Your task to perform on an android device: Find coffee shops on Maps Image 0: 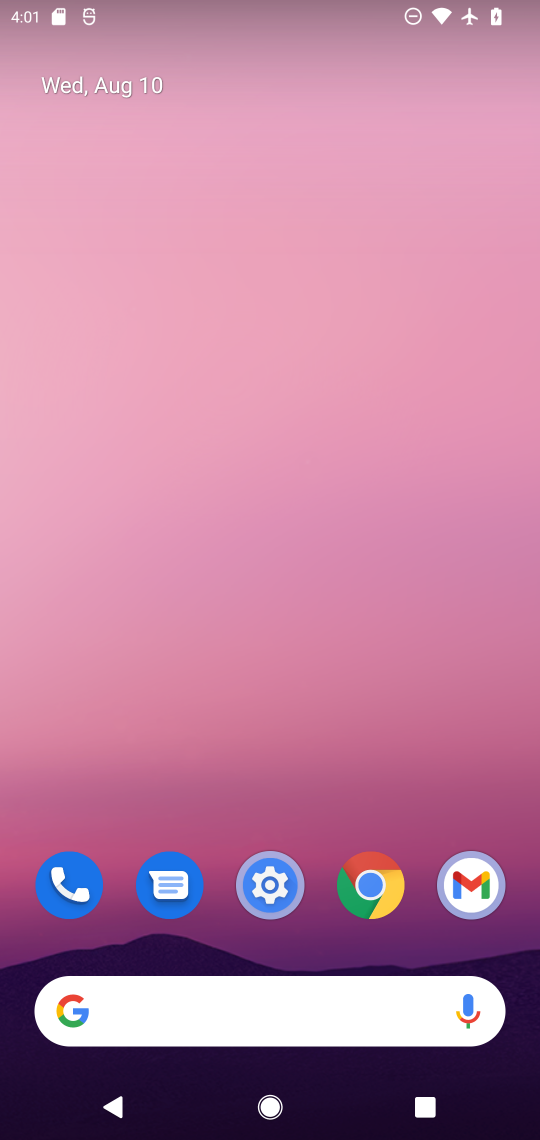
Step 0: drag from (318, 946) to (174, 101)
Your task to perform on an android device: Find coffee shops on Maps Image 1: 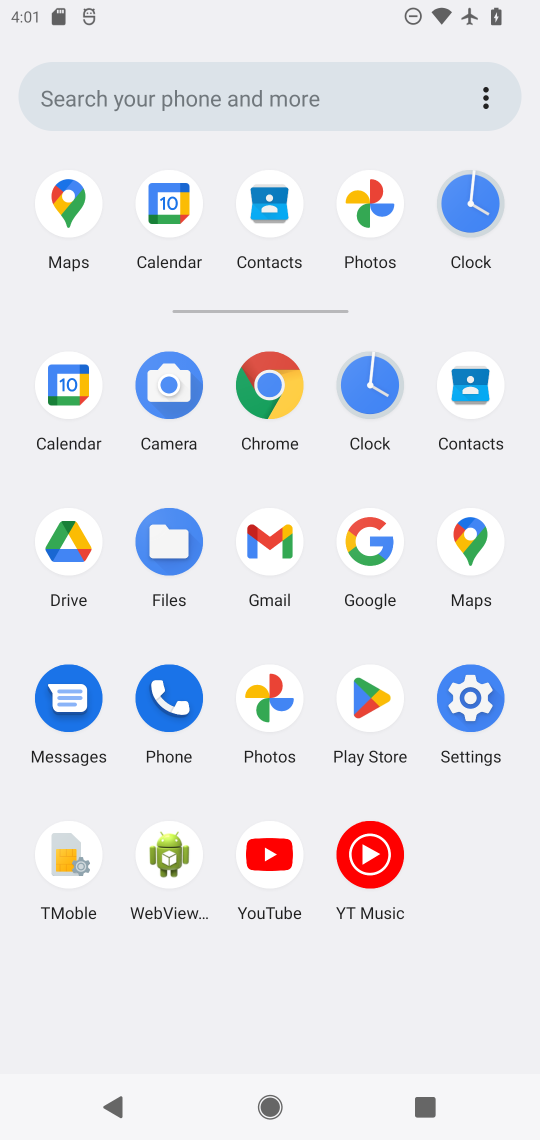
Step 1: click (69, 191)
Your task to perform on an android device: Find coffee shops on Maps Image 2: 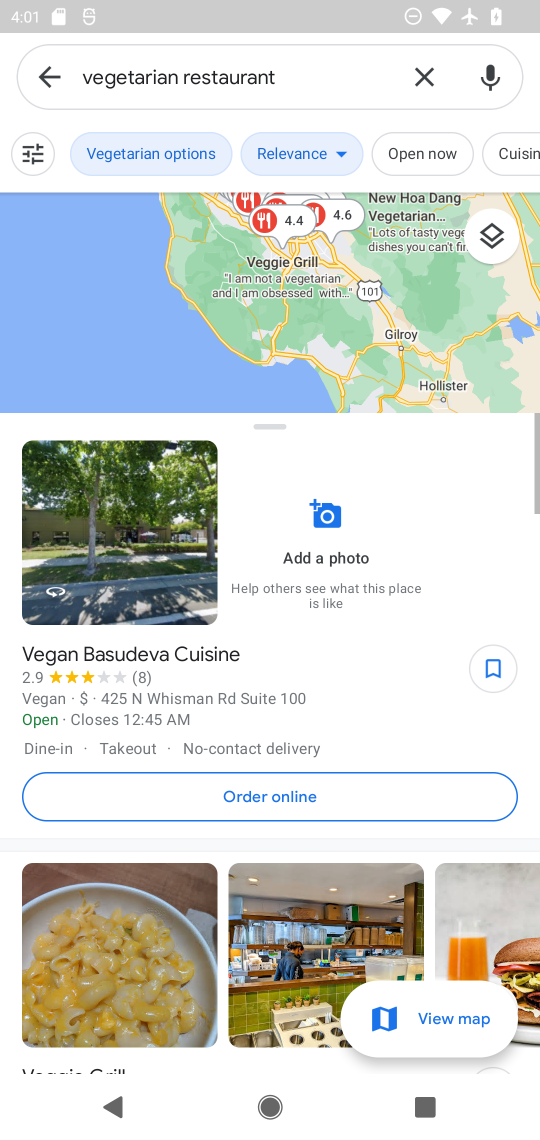
Step 2: click (422, 76)
Your task to perform on an android device: Find coffee shops on Maps Image 3: 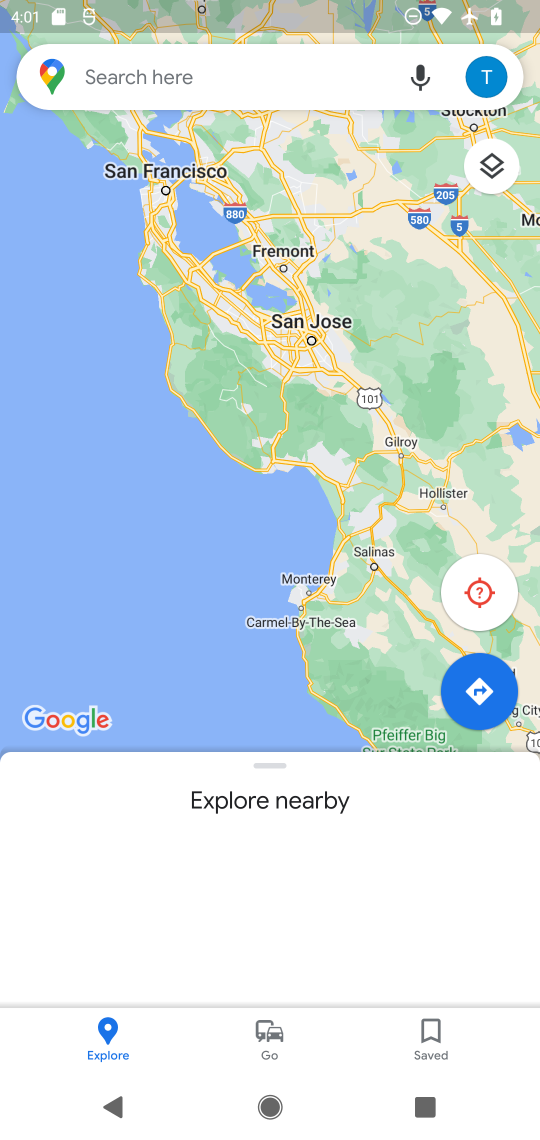
Step 3: click (228, 87)
Your task to perform on an android device: Find coffee shops on Maps Image 4: 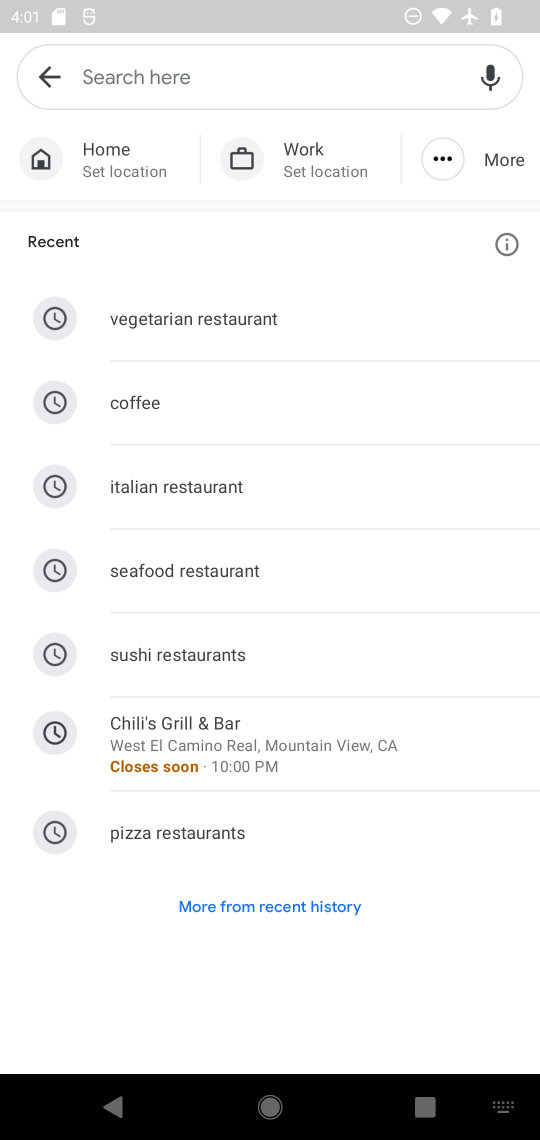
Step 4: click (141, 401)
Your task to perform on an android device: Find coffee shops on Maps Image 5: 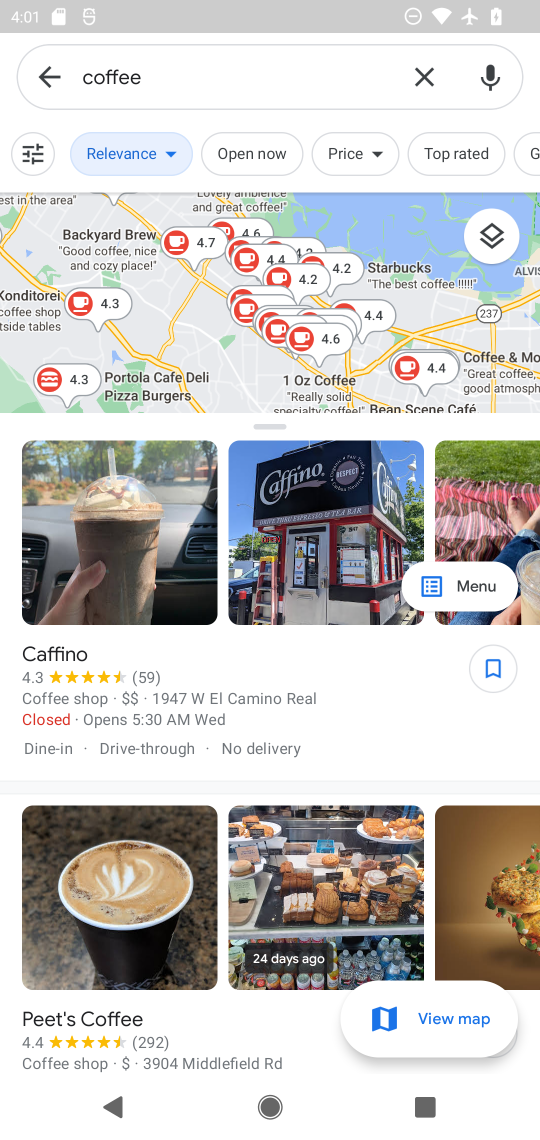
Step 5: task complete